Your task to perform on an android device: empty trash in google photos Image 0: 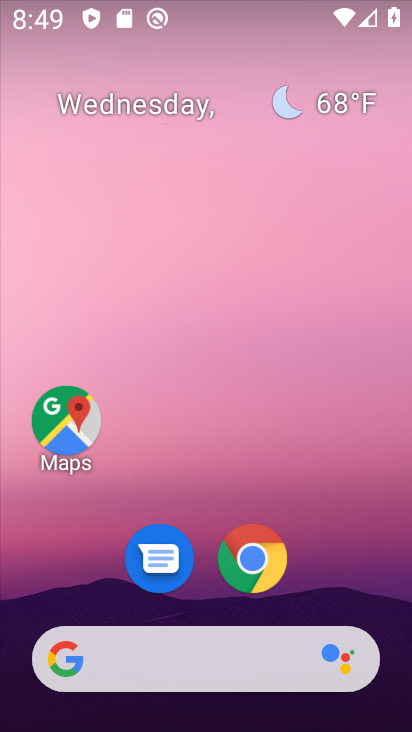
Step 0: drag from (341, 569) to (259, 116)
Your task to perform on an android device: empty trash in google photos Image 1: 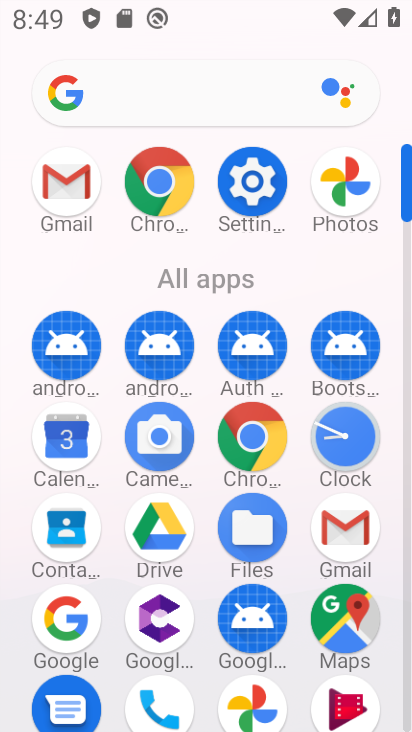
Step 1: click (340, 183)
Your task to perform on an android device: empty trash in google photos Image 2: 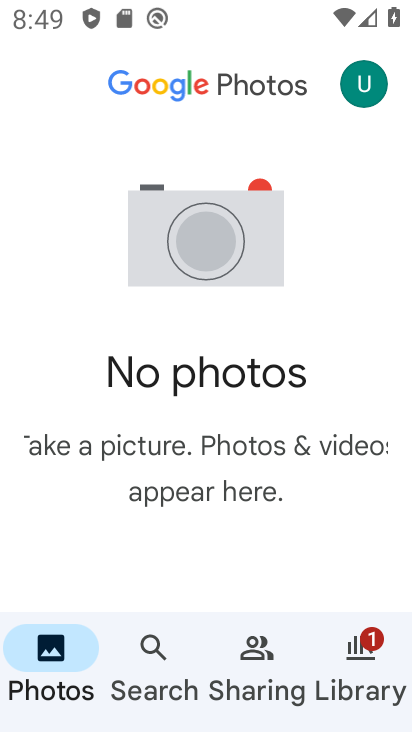
Step 2: click (365, 97)
Your task to perform on an android device: empty trash in google photos Image 3: 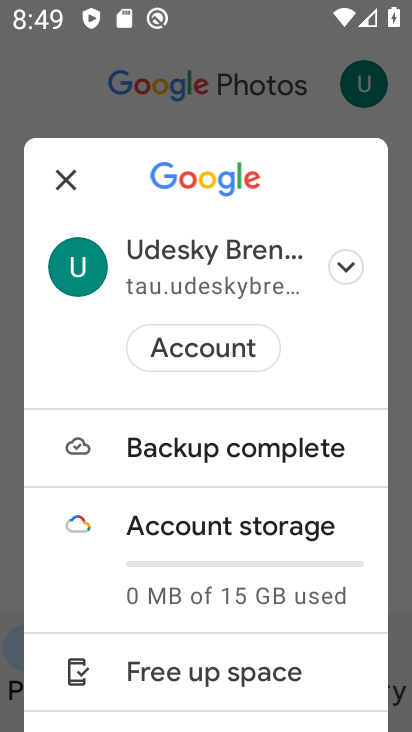
Step 3: click (164, 686)
Your task to perform on an android device: empty trash in google photos Image 4: 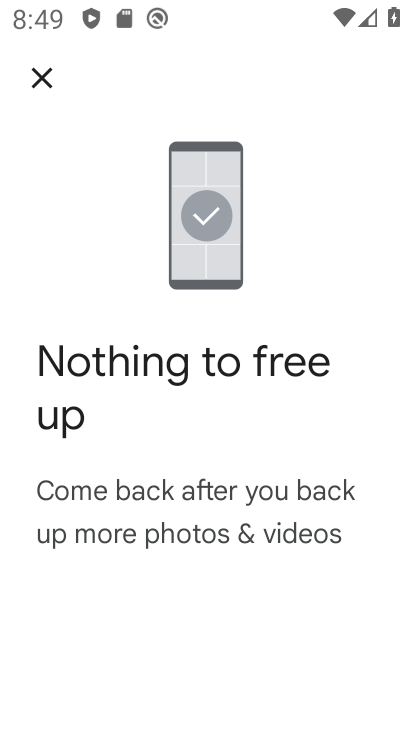
Step 4: task complete